Your task to perform on an android device: turn notification dots off Image 0: 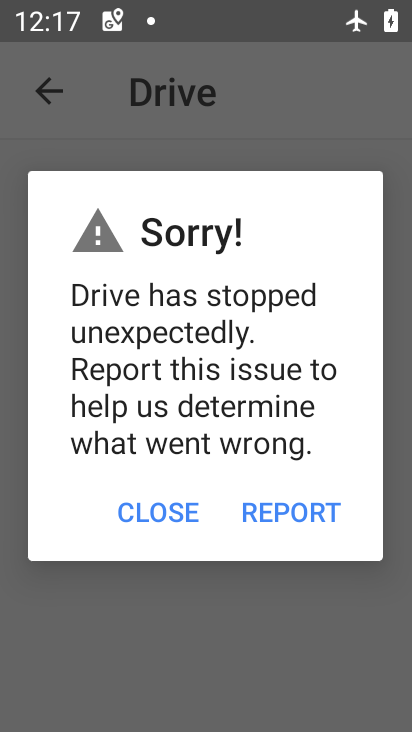
Step 0: press home button
Your task to perform on an android device: turn notification dots off Image 1: 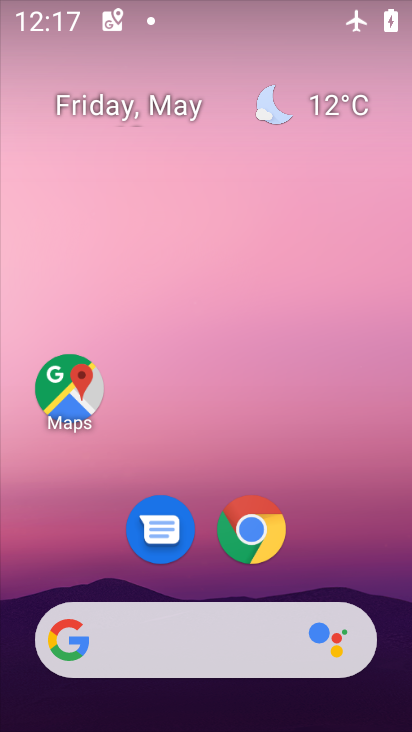
Step 1: drag from (309, 559) to (318, 251)
Your task to perform on an android device: turn notification dots off Image 2: 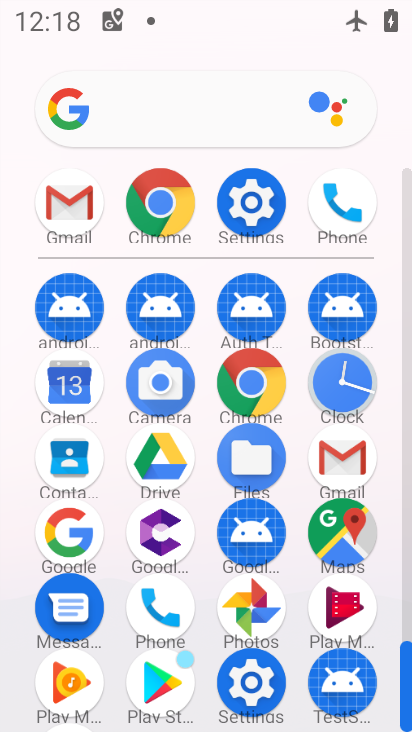
Step 2: click (242, 674)
Your task to perform on an android device: turn notification dots off Image 3: 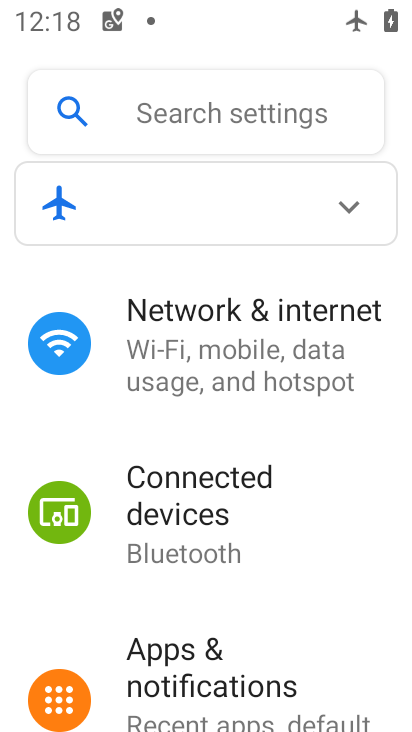
Step 3: click (179, 88)
Your task to perform on an android device: turn notification dots off Image 4: 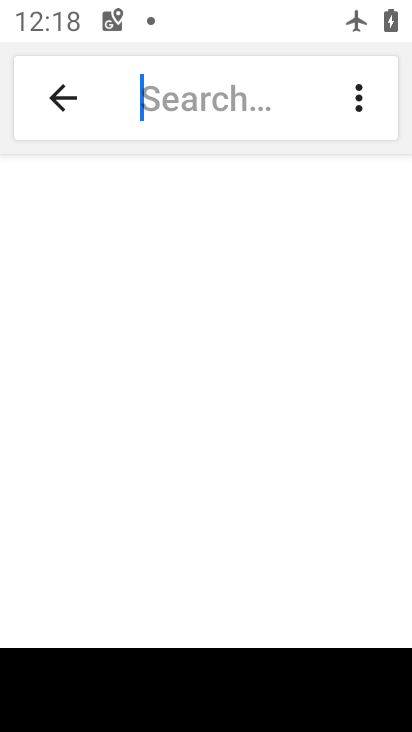
Step 4: type " notification dots "
Your task to perform on an android device: turn notification dots off Image 5: 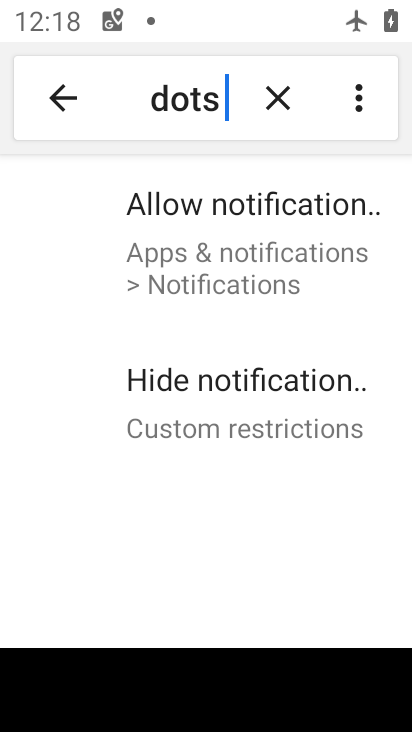
Step 5: click (224, 287)
Your task to perform on an android device: turn notification dots off Image 6: 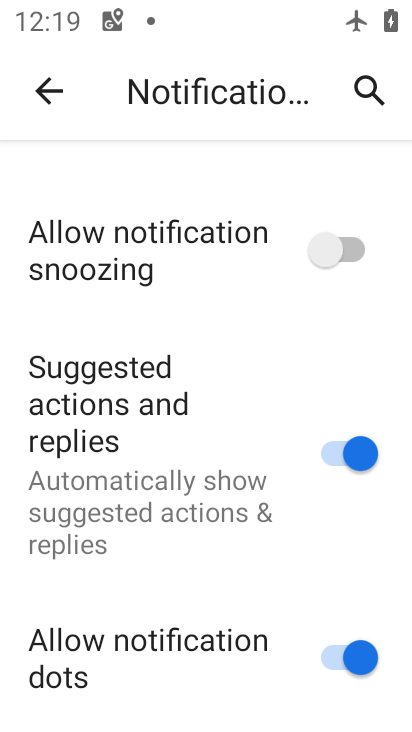
Step 6: task complete